Your task to perform on an android device: turn off wifi Image 0: 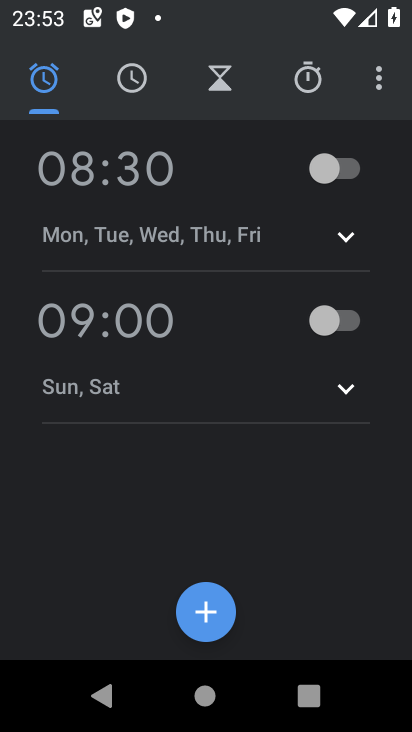
Step 0: drag from (214, 13) to (108, 506)
Your task to perform on an android device: turn off wifi Image 1: 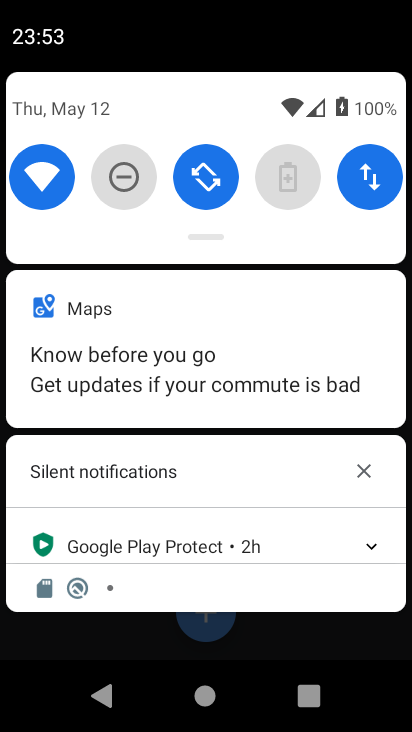
Step 1: click (54, 205)
Your task to perform on an android device: turn off wifi Image 2: 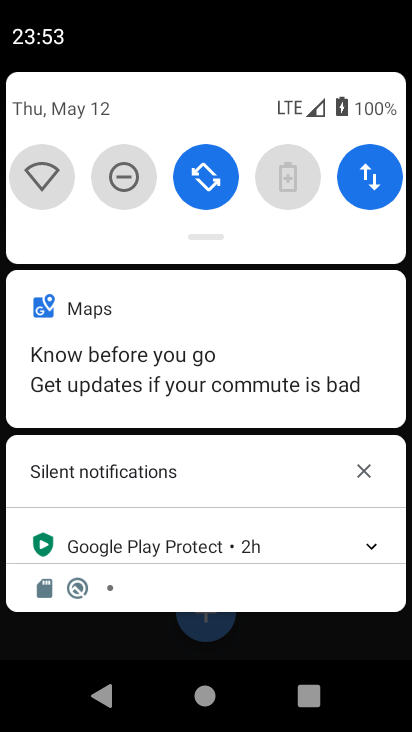
Step 2: task complete